Your task to perform on an android device: open device folders in google photos Image 0: 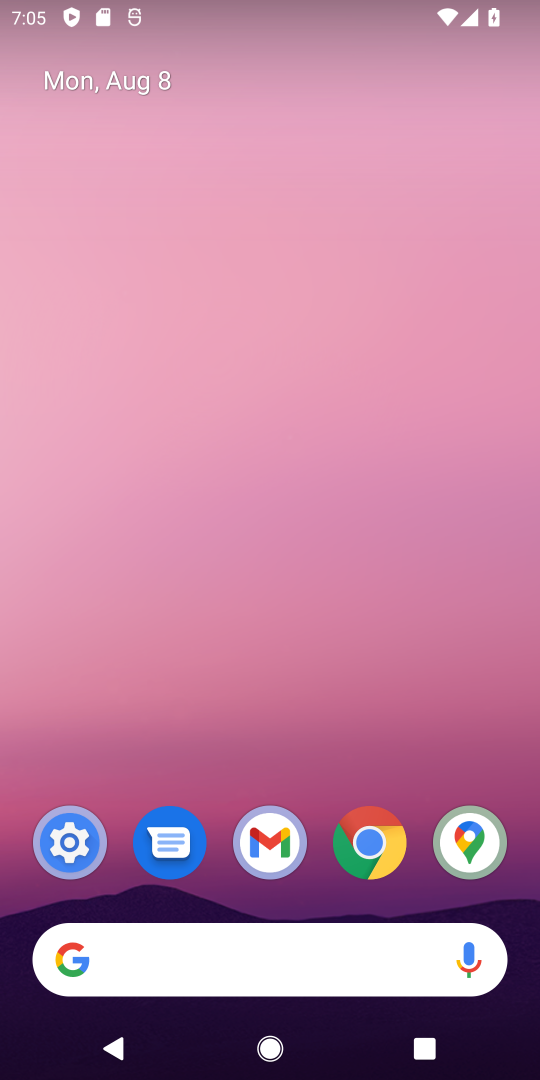
Step 0: drag from (252, 866) to (198, 116)
Your task to perform on an android device: open device folders in google photos Image 1: 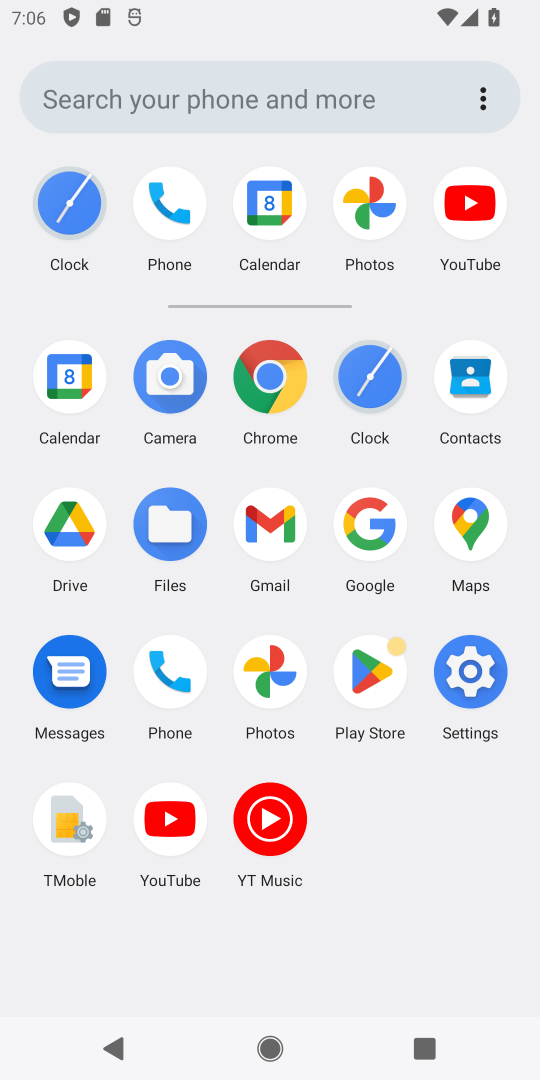
Step 1: click (262, 662)
Your task to perform on an android device: open device folders in google photos Image 2: 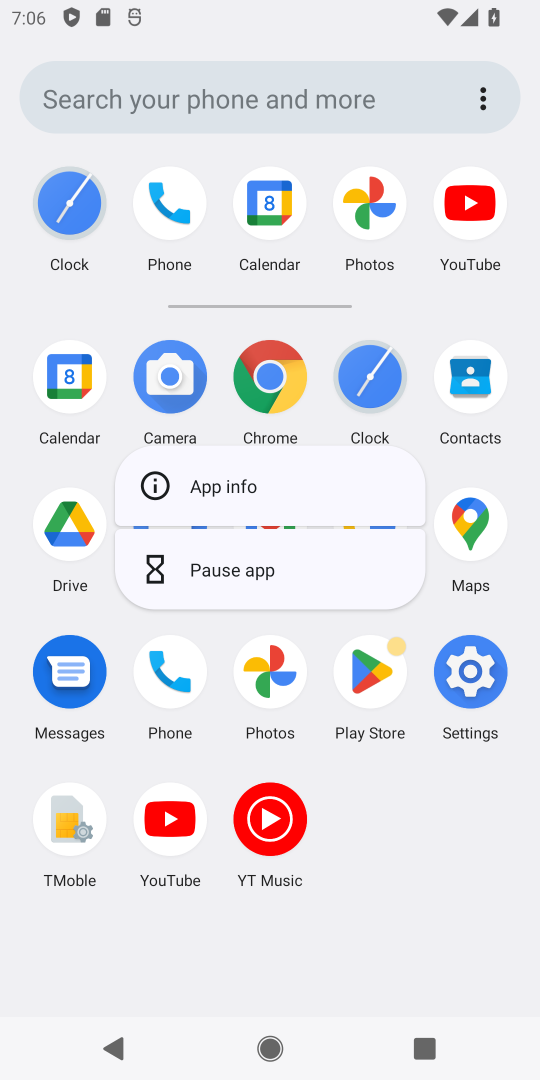
Step 2: click (278, 671)
Your task to perform on an android device: open device folders in google photos Image 3: 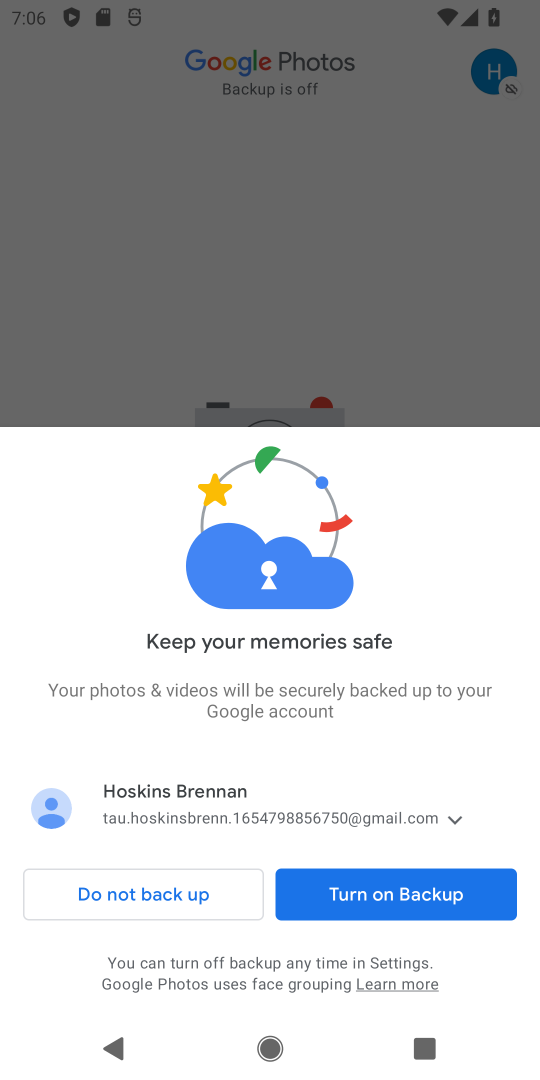
Step 3: click (338, 887)
Your task to perform on an android device: open device folders in google photos Image 4: 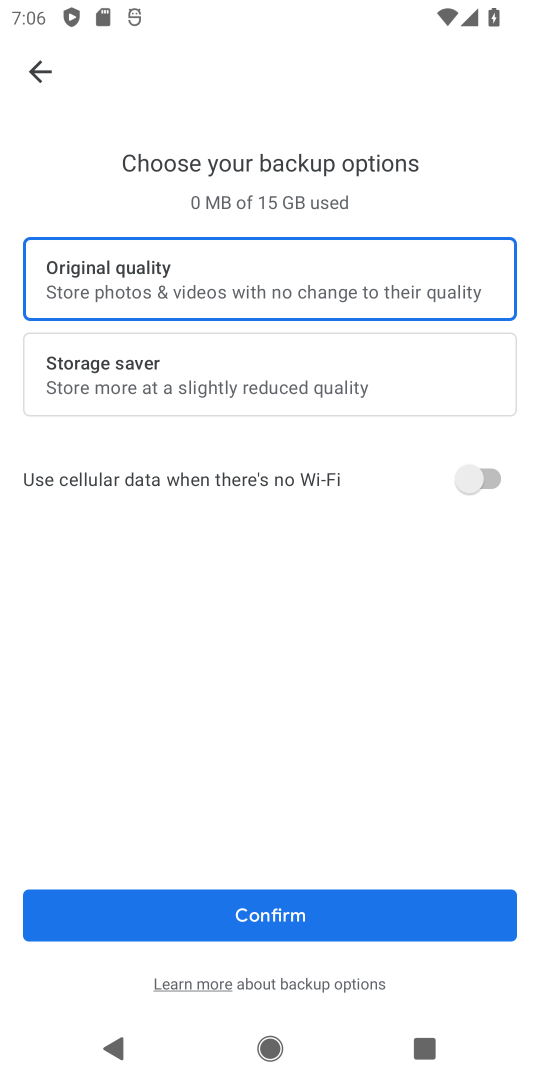
Step 4: click (286, 925)
Your task to perform on an android device: open device folders in google photos Image 5: 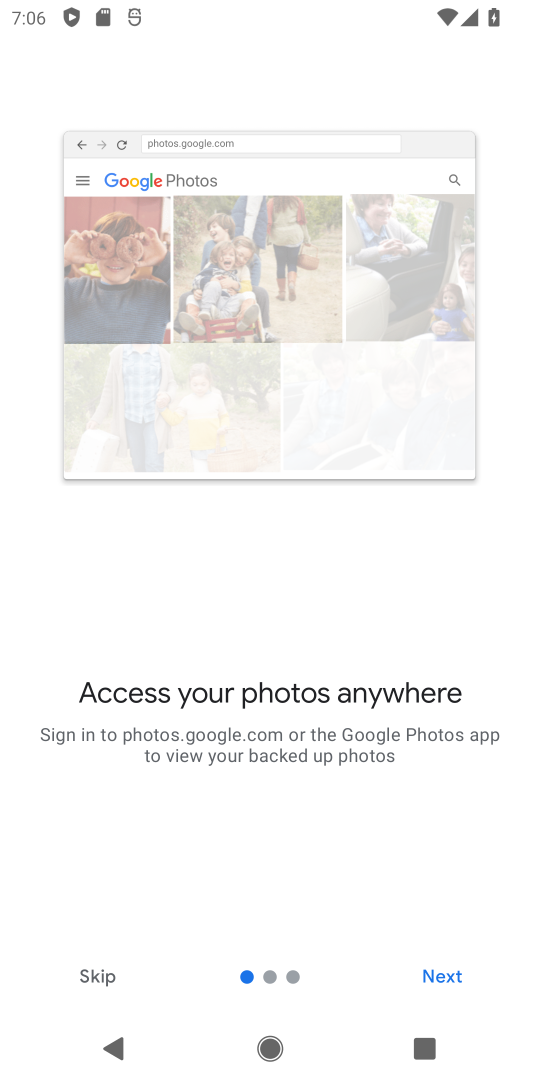
Step 5: click (78, 970)
Your task to perform on an android device: open device folders in google photos Image 6: 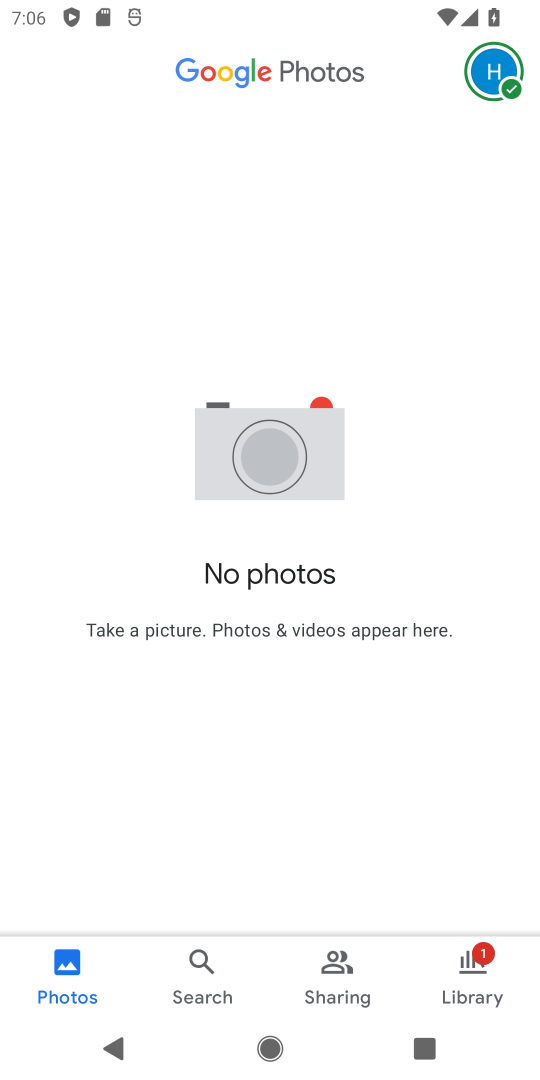
Step 6: drag from (484, 78) to (433, 202)
Your task to perform on an android device: open device folders in google photos Image 7: 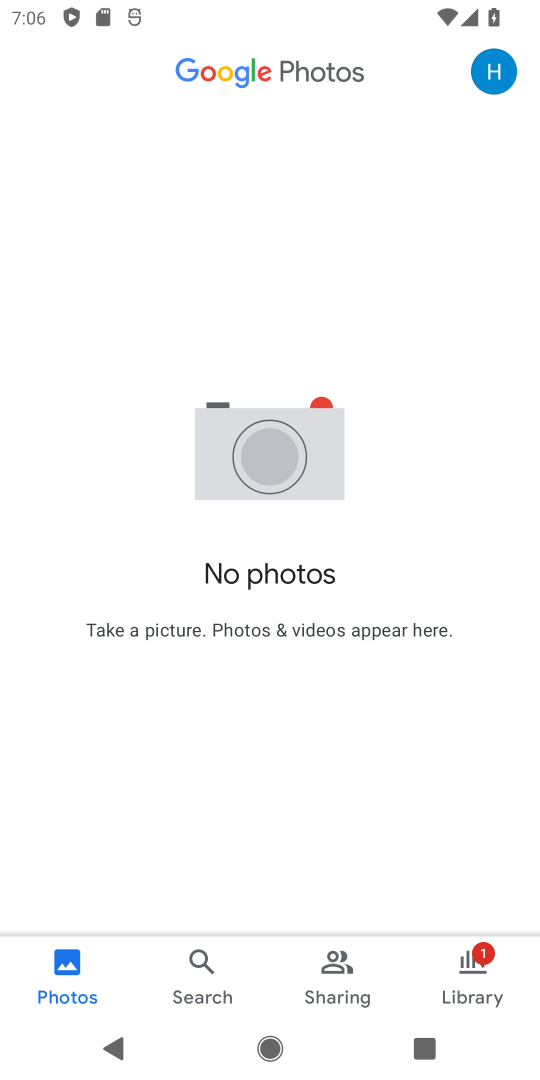
Step 7: click (496, 65)
Your task to perform on an android device: open device folders in google photos Image 8: 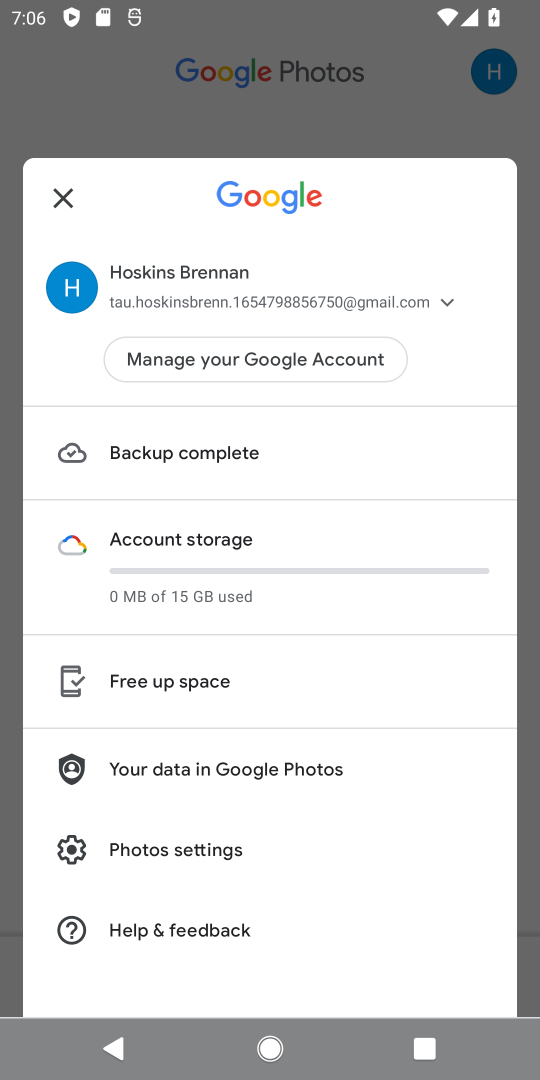
Step 8: click (174, 847)
Your task to perform on an android device: open device folders in google photos Image 9: 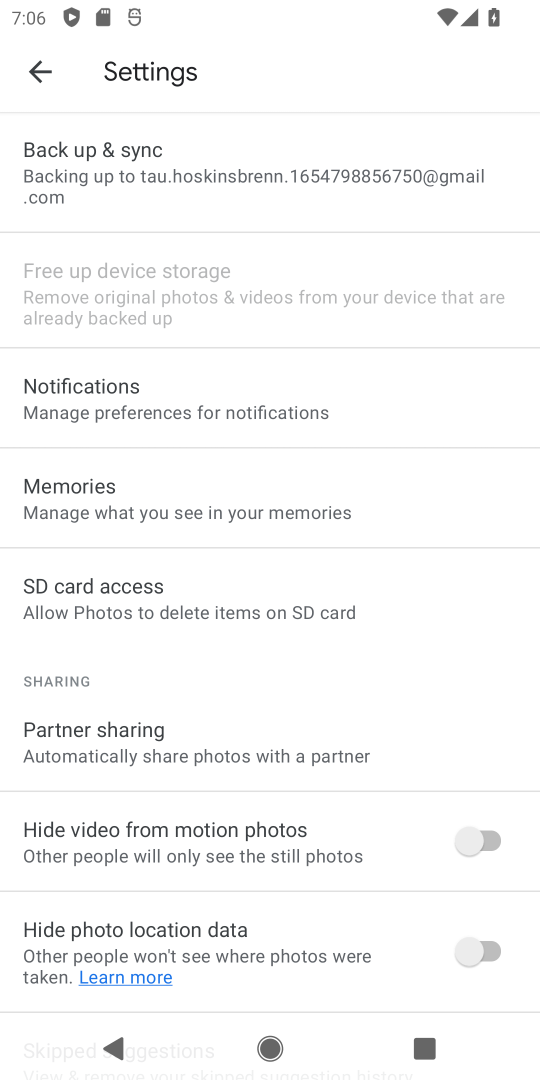
Step 9: task complete